Your task to perform on an android device: Set the phone to "Do not disturb". Image 0: 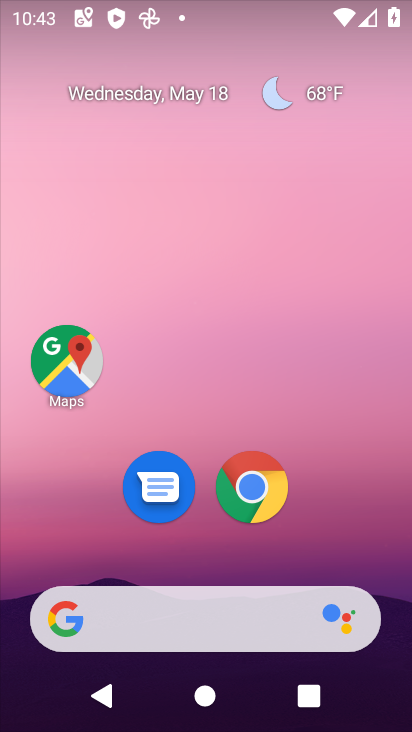
Step 0: drag from (318, 549) to (378, 197)
Your task to perform on an android device: Set the phone to "Do not disturb". Image 1: 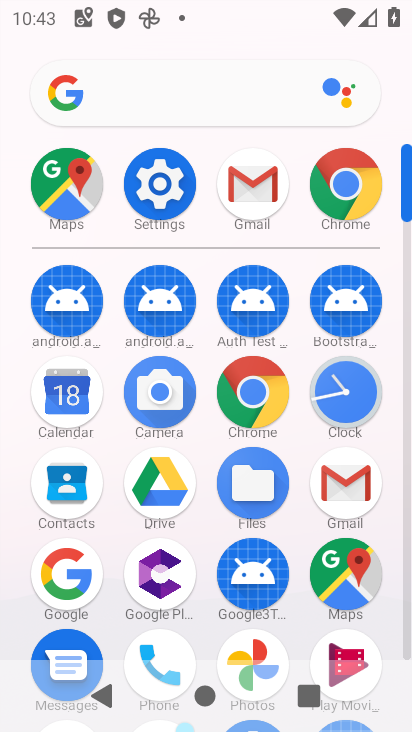
Step 1: click (159, 200)
Your task to perform on an android device: Set the phone to "Do not disturb". Image 2: 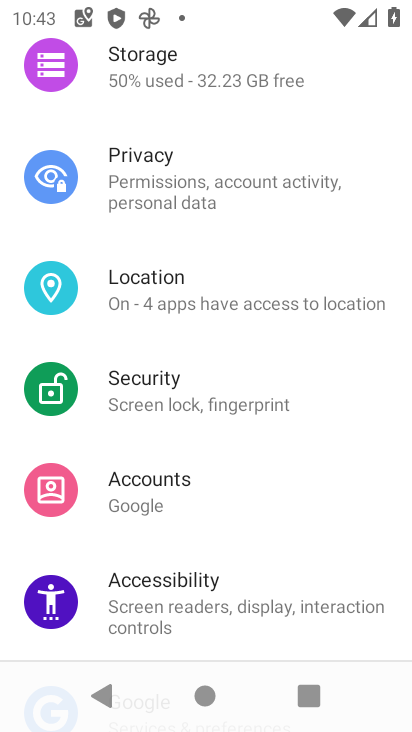
Step 2: drag from (221, 524) to (277, 228)
Your task to perform on an android device: Set the phone to "Do not disturb". Image 3: 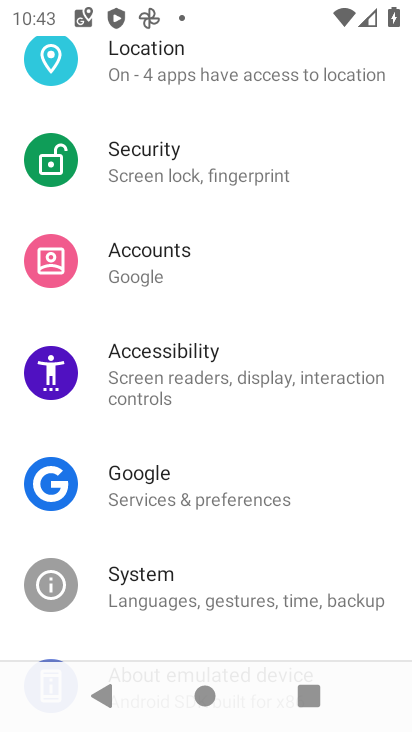
Step 3: drag from (270, 244) to (269, 602)
Your task to perform on an android device: Set the phone to "Do not disturb". Image 4: 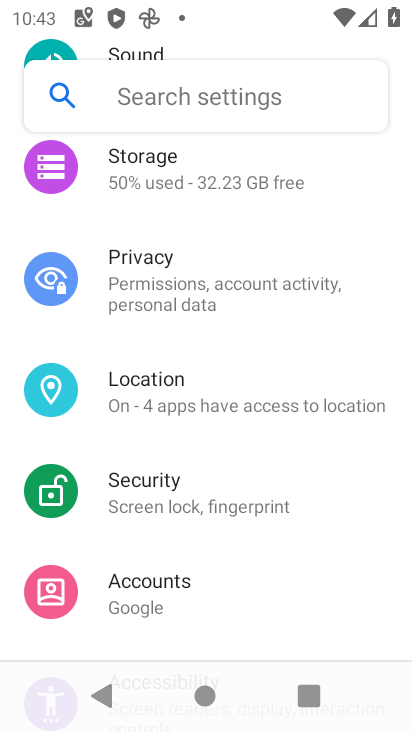
Step 4: drag from (160, 295) to (160, 524)
Your task to perform on an android device: Set the phone to "Do not disturb". Image 5: 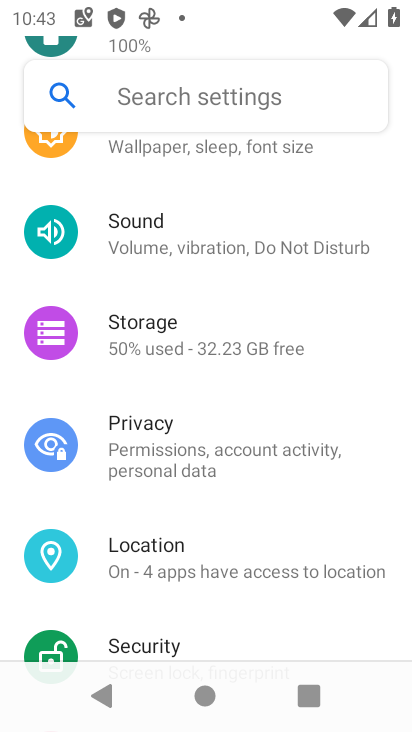
Step 5: drag from (138, 176) to (147, 493)
Your task to perform on an android device: Set the phone to "Do not disturb". Image 6: 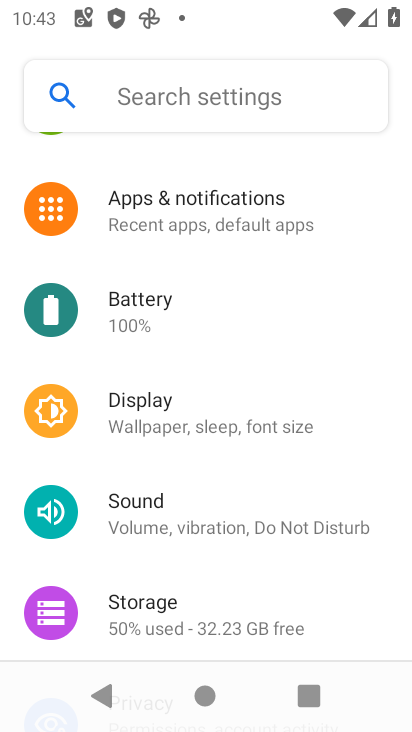
Step 6: click (210, 502)
Your task to perform on an android device: Set the phone to "Do not disturb". Image 7: 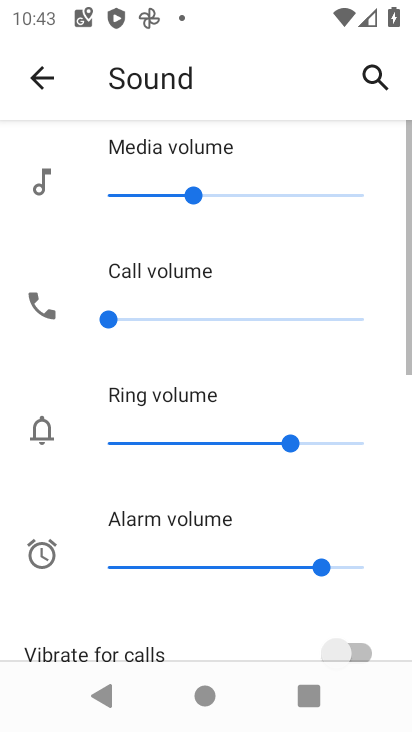
Step 7: drag from (176, 621) to (224, 212)
Your task to perform on an android device: Set the phone to "Do not disturb". Image 8: 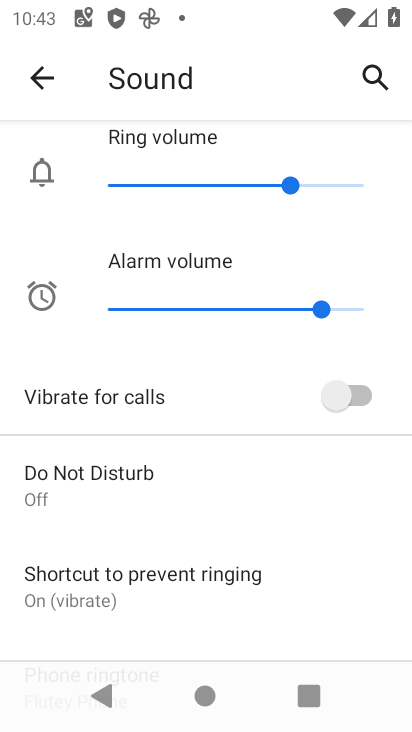
Step 8: click (157, 473)
Your task to perform on an android device: Set the phone to "Do not disturb". Image 9: 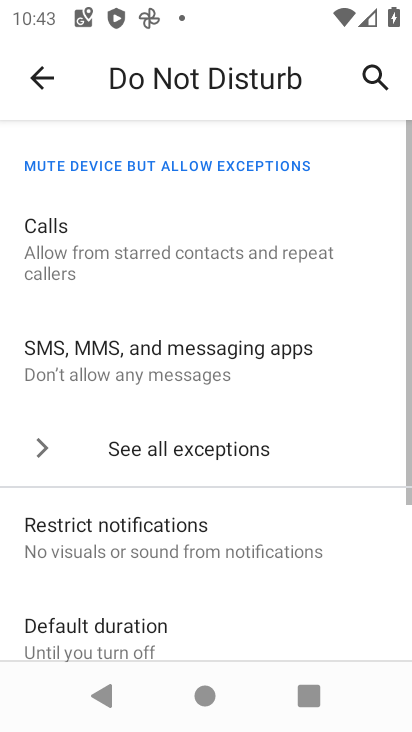
Step 9: drag from (139, 629) to (216, 336)
Your task to perform on an android device: Set the phone to "Do not disturb". Image 10: 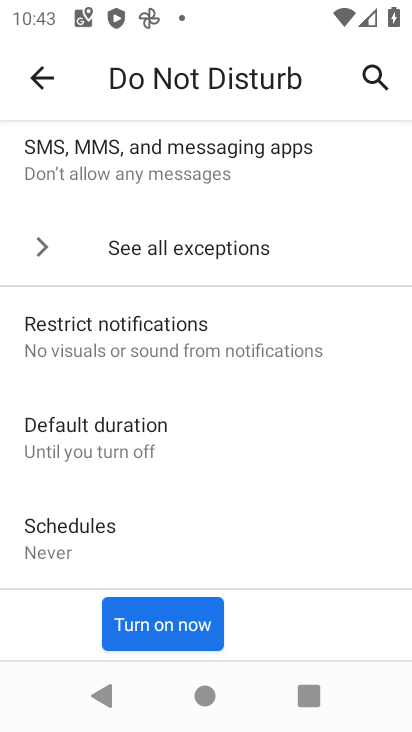
Step 10: click (114, 628)
Your task to perform on an android device: Set the phone to "Do not disturb". Image 11: 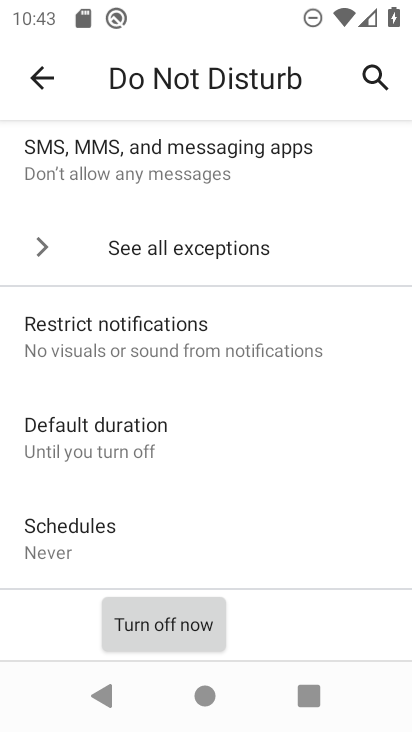
Step 11: task complete